Your task to perform on an android device: toggle priority inbox in the gmail app Image 0: 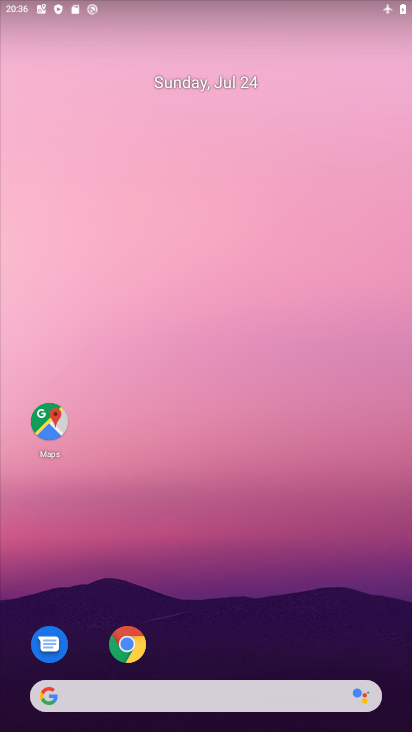
Step 0: drag from (376, 641) to (344, 236)
Your task to perform on an android device: toggle priority inbox in the gmail app Image 1: 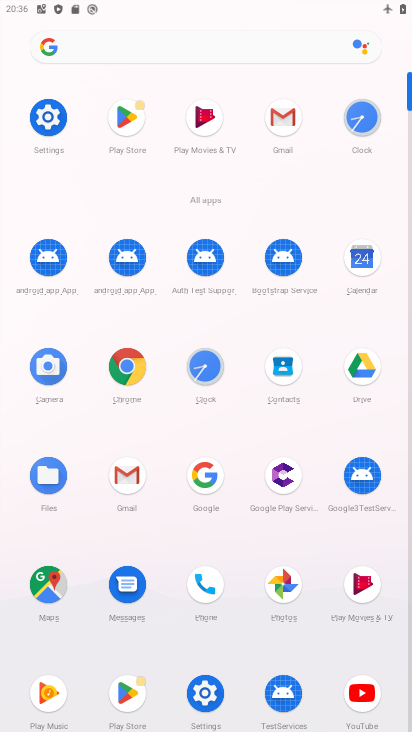
Step 1: click (128, 475)
Your task to perform on an android device: toggle priority inbox in the gmail app Image 2: 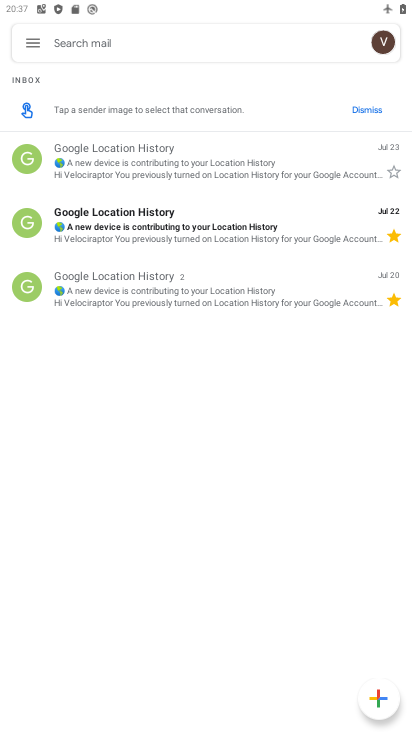
Step 2: click (37, 41)
Your task to perform on an android device: toggle priority inbox in the gmail app Image 3: 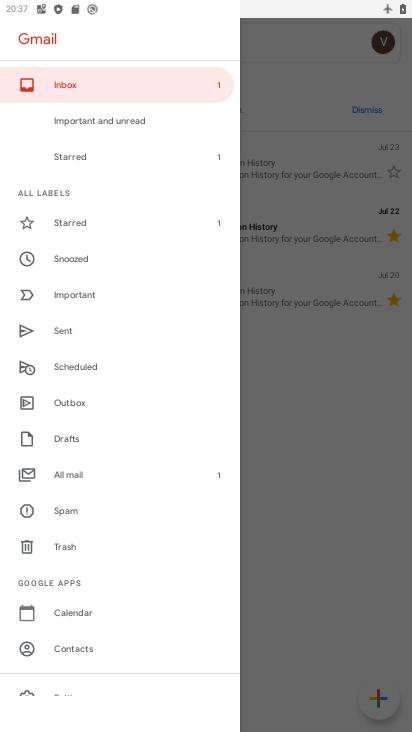
Step 3: drag from (109, 617) to (126, 303)
Your task to perform on an android device: toggle priority inbox in the gmail app Image 4: 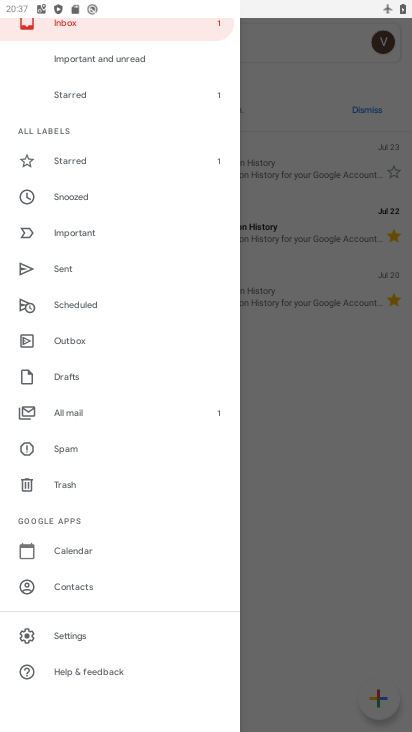
Step 4: click (66, 630)
Your task to perform on an android device: toggle priority inbox in the gmail app Image 5: 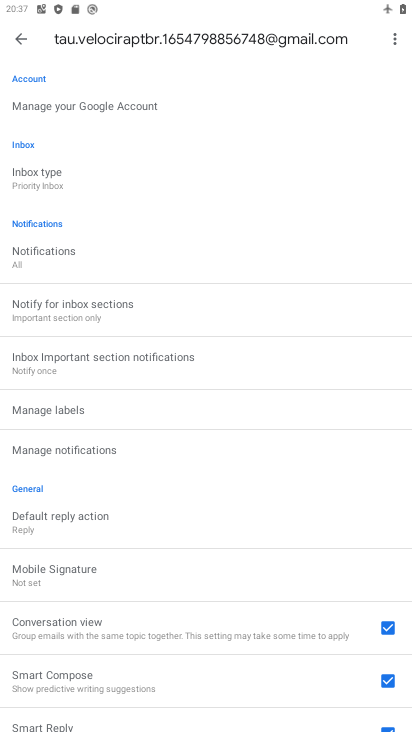
Step 5: click (45, 182)
Your task to perform on an android device: toggle priority inbox in the gmail app Image 6: 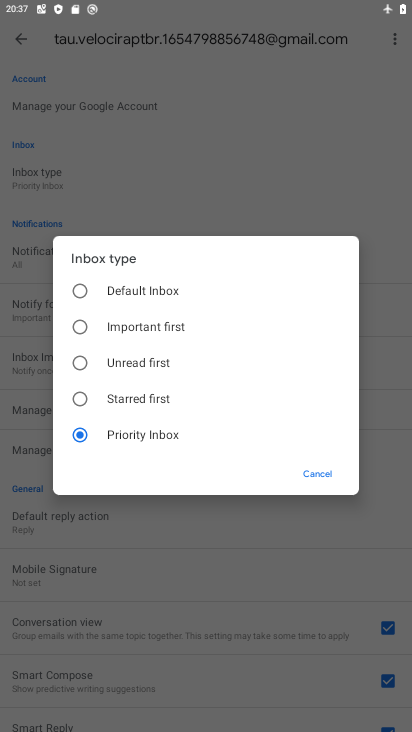
Step 6: click (79, 285)
Your task to perform on an android device: toggle priority inbox in the gmail app Image 7: 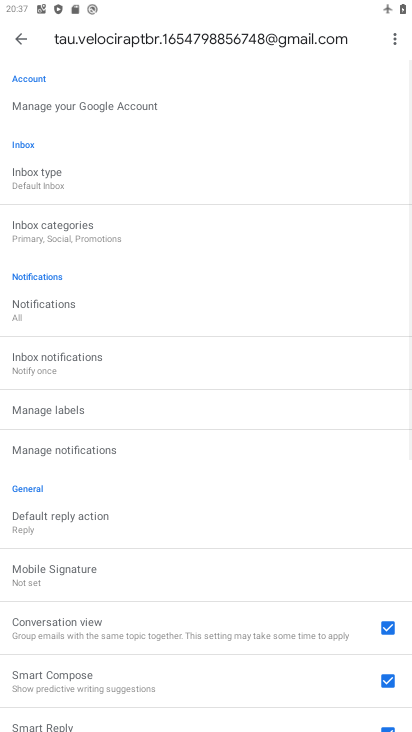
Step 7: task complete